Your task to perform on an android device: Search for sushi restaurants on Maps Image 0: 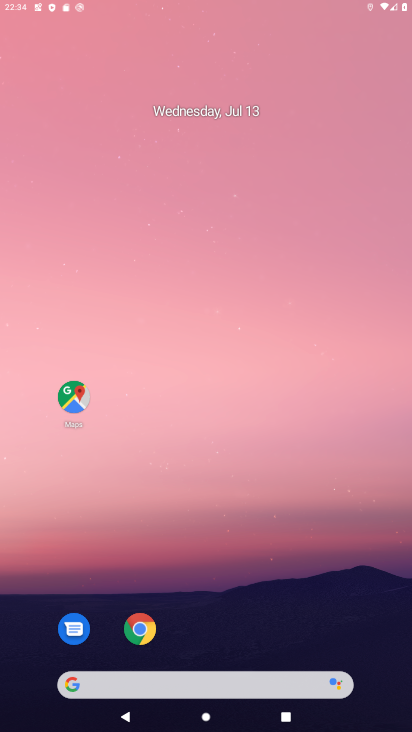
Step 0: press home button
Your task to perform on an android device: Search for sushi restaurants on Maps Image 1: 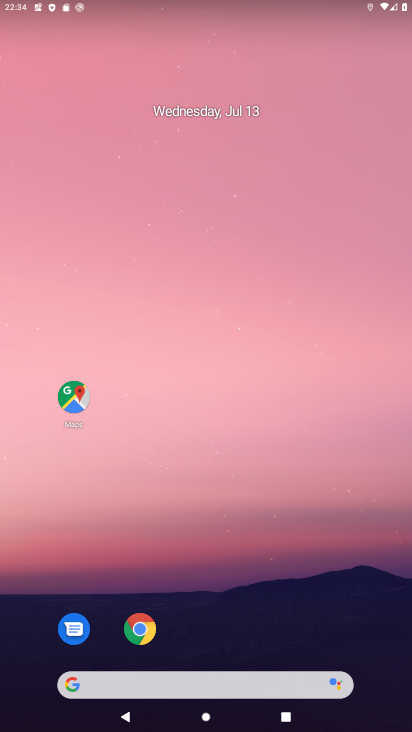
Step 1: click (74, 398)
Your task to perform on an android device: Search for sushi restaurants on Maps Image 2: 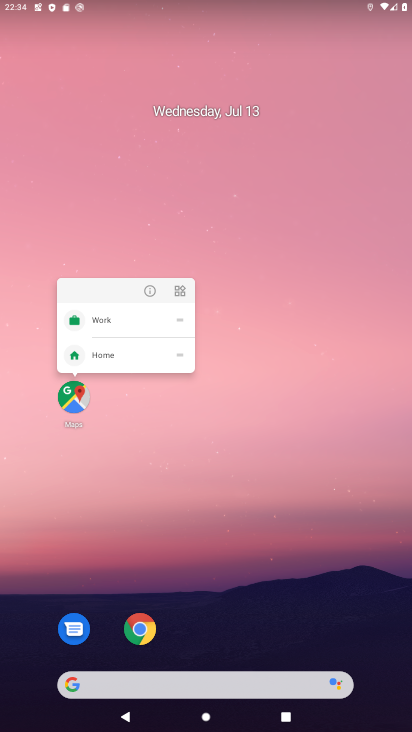
Step 2: click (74, 398)
Your task to perform on an android device: Search for sushi restaurants on Maps Image 3: 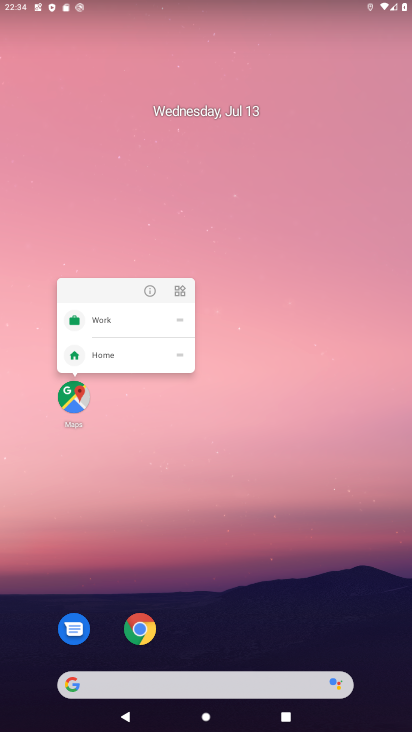
Step 3: click (74, 398)
Your task to perform on an android device: Search for sushi restaurants on Maps Image 4: 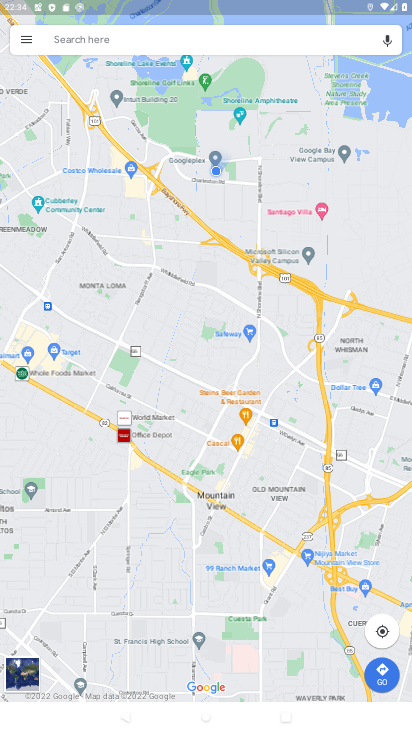
Step 4: click (114, 34)
Your task to perform on an android device: Search for sushi restaurants on Maps Image 5: 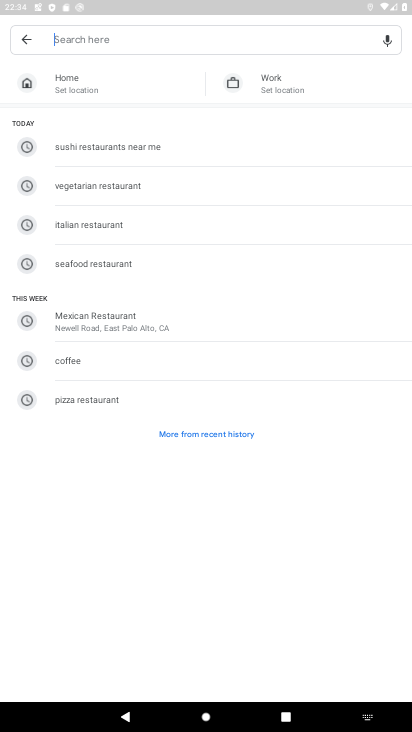
Step 5: type "sushi"
Your task to perform on an android device: Search for sushi restaurants on Maps Image 6: 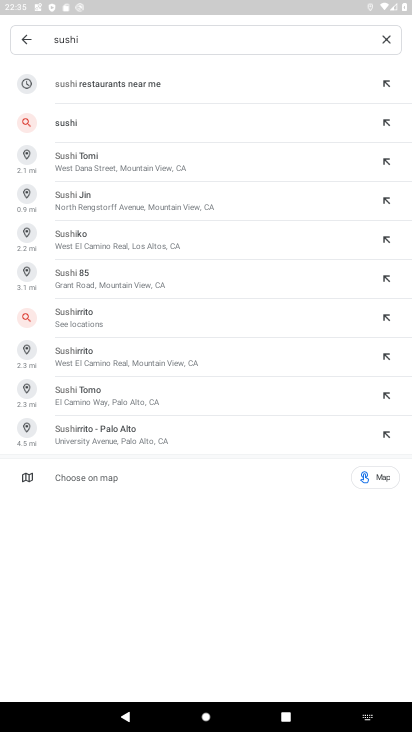
Step 6: click (139, 88)
Your task to perform on an android device: Search for sushi restaurants on Maps Image 7: 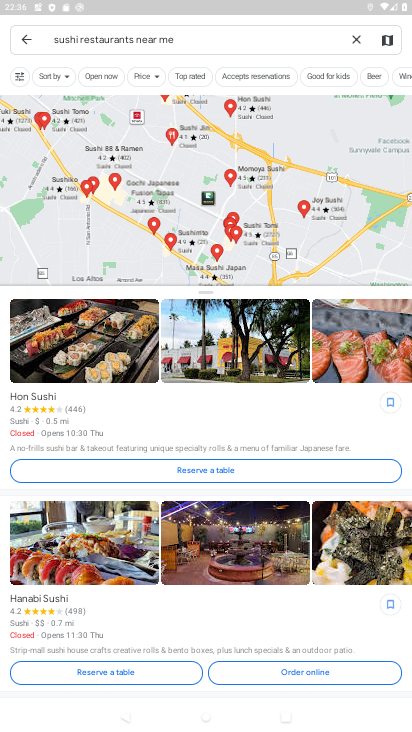
Step 7: task complete